Your task to perform on an android device: open app "Move to iOS" (install if not already installed) Image 0: 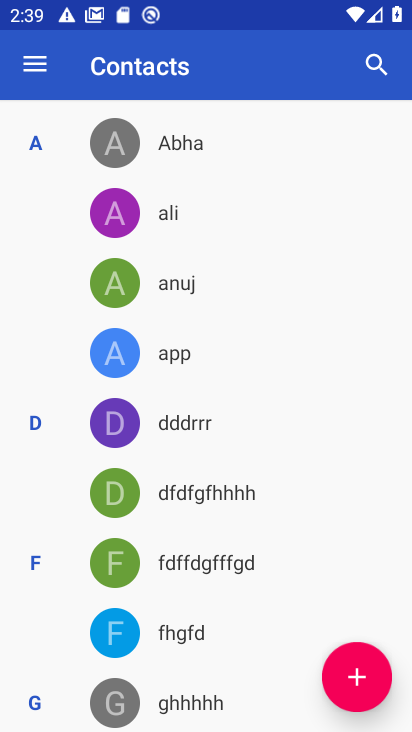
Step 0: press home button
Your task to perform on an android device: open app "Move to iOS" (install if not already installed) Image 1: 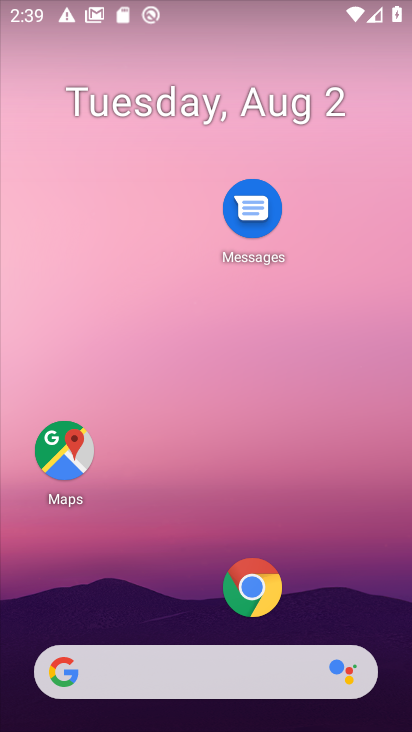
Step 1: drag from (162, 617) to (166, 214)
Your task to perform on an android device: open app "Move to iOS" (install if not already installed) Image 2: 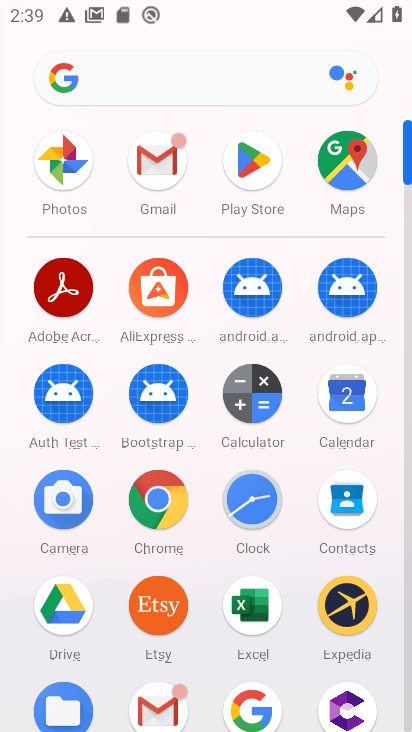
Step 2: click (226, 152)
Your task to perform on an android device: open app "Move to iOS" (install if not already installed) Image 3: 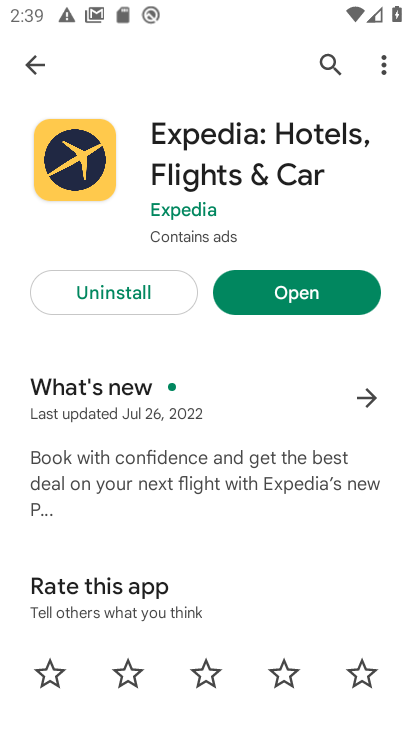
Step 3: click (340, 57)
Your task to perform on an android device: open app "Move to iOS" (install if not already installed) Image 4: 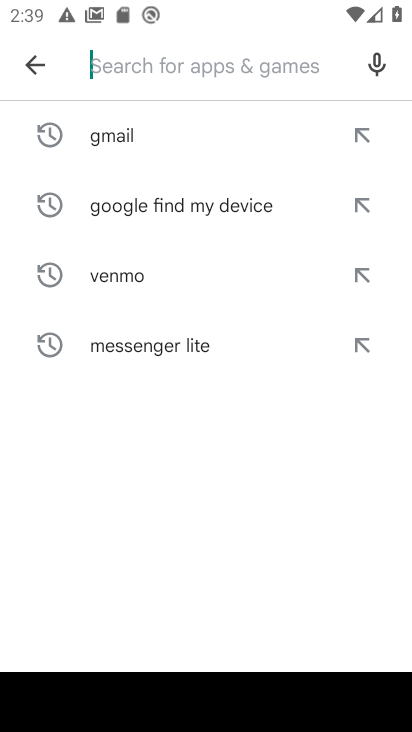
Step 4: type "Move to iOS"
Your task to perform on an android device: open app "Move to iOS" (install if not already installed) Image 5: 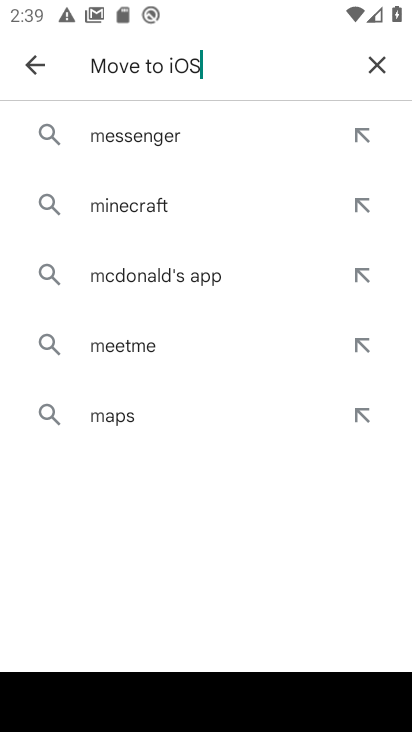
Step 5: type ""
Your task to perform on an android device: open app "Move to iOS" (install if not already installed) Image 6: 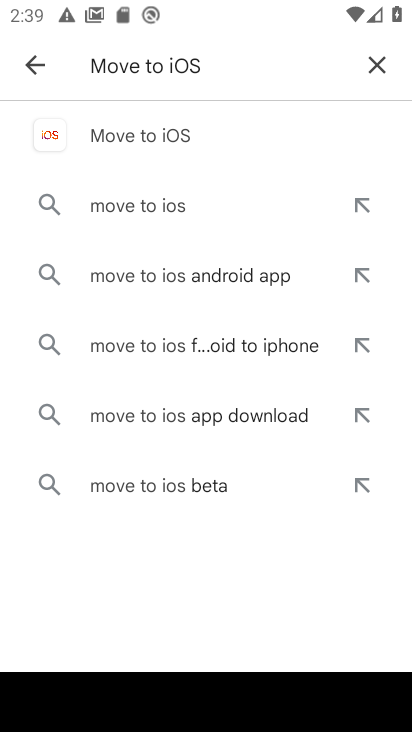
Step 6: click (203, 121)
Your task to perform on an android device: open app "Move to iOS" (install if not already installed) Image 7: 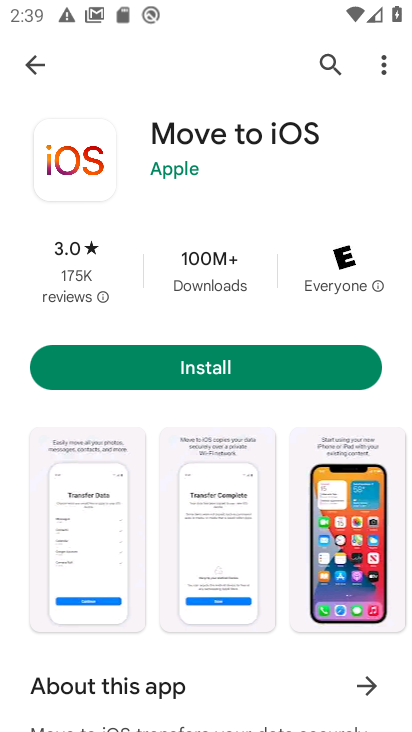
Step 7: click (254, 353)
Your task to perform on an android device: open app "Move to iOS" (install if not already installed) Image 8: 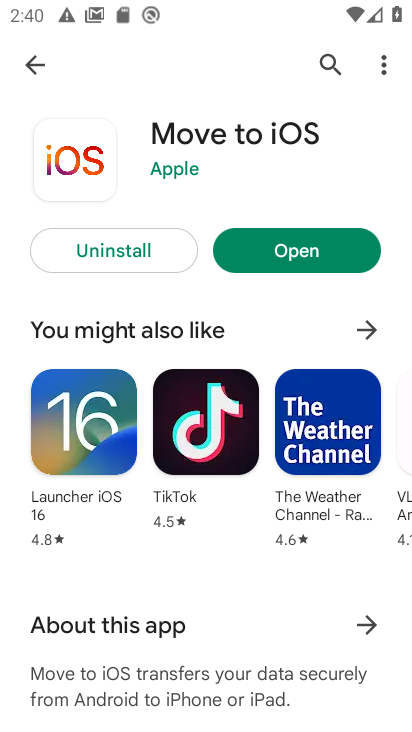
Step 8: click (275, 259)
Your task to perform on an android device: open app "Move to iOS" (install if not already installed) Image 9: 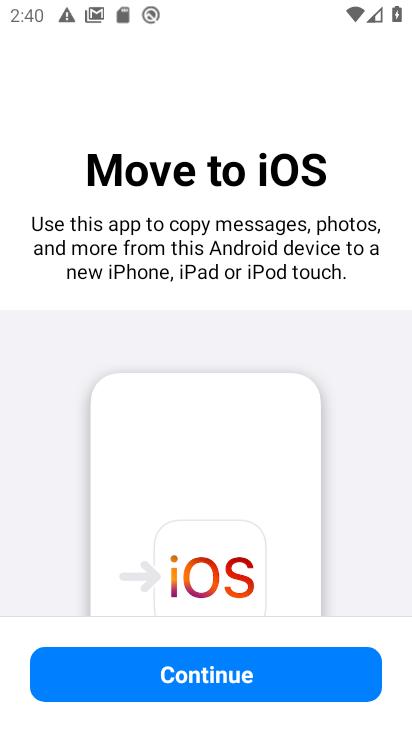
Step 9: task complete